Your task to perform on an android device: turn on translation in the chrome app Image 0: 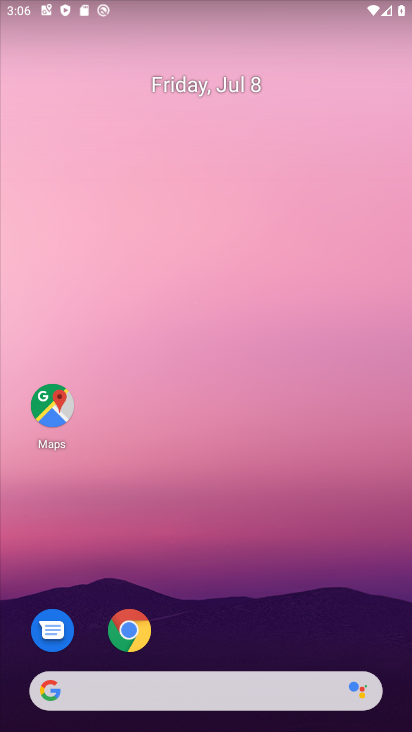
Step 0: click (146, 636)
Your task to perform on an android device: turn on translation in the chrome app Image 1: 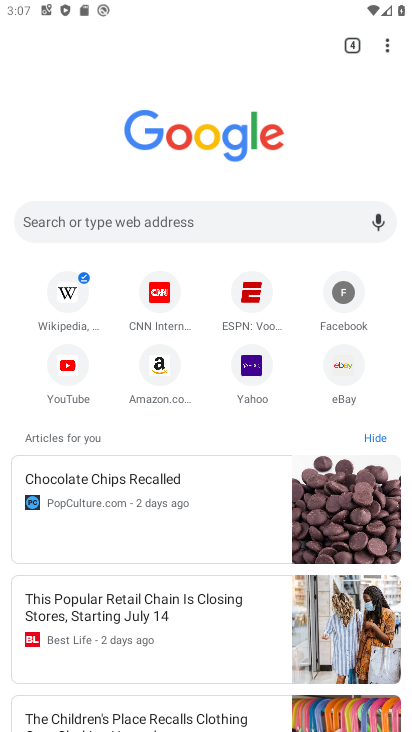
Step 1: click (382, 39)
Your task to perform on an android device: turn on translation in the chrome app Image 2: 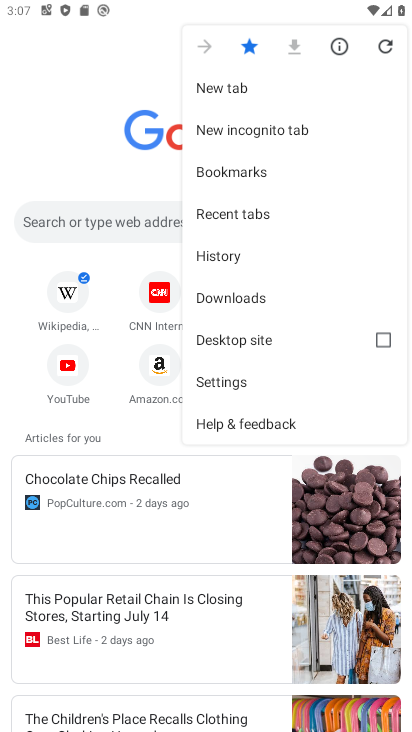
Step 2: click (271, 389)
Your task to perform on an android device: turn on translation in the chrome app Image 3: 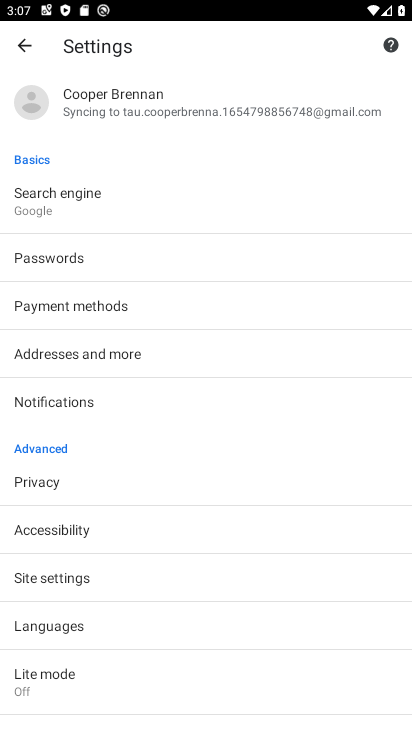
Step 3: click (179, 622)
Your task to perform on an android device: turn on translation in the chrome app Image 4: 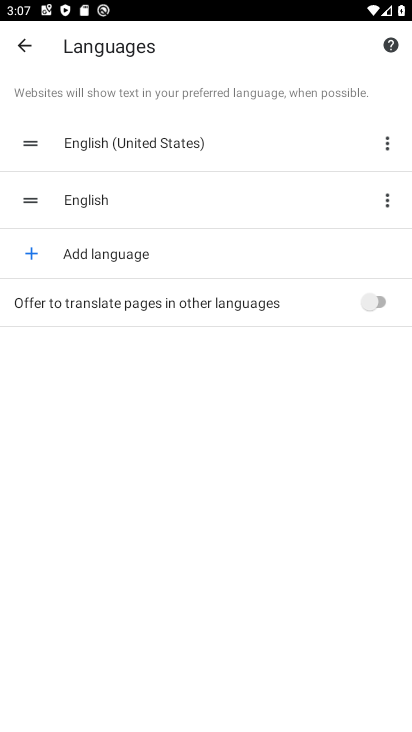
Step 4: click (386, 292)
Your task to perform on an android device: turn on translation in the chrome app Image 5: 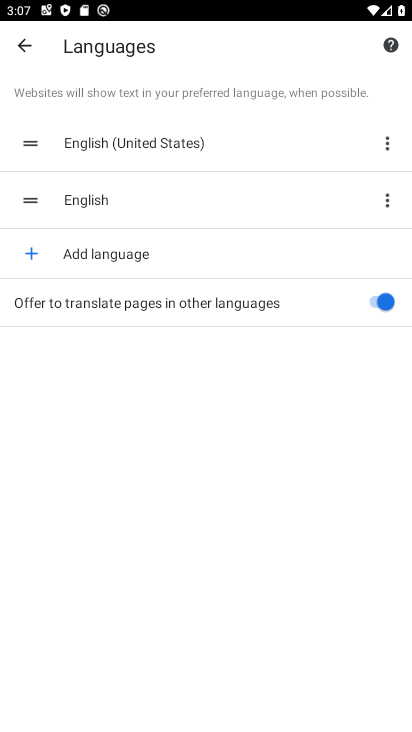
Step 5: task complete